Your task to perform on an android device: add a label to a message in the gmail app Image 0: 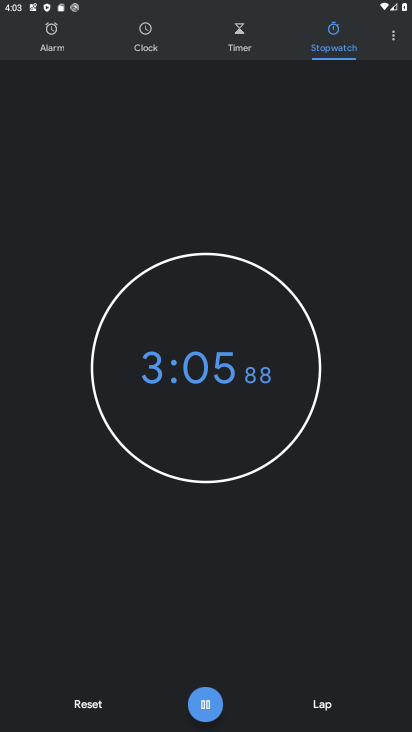
Step 0: press home button
Your task to perform on an android device: add a label to a message in the gmail app Image 1: 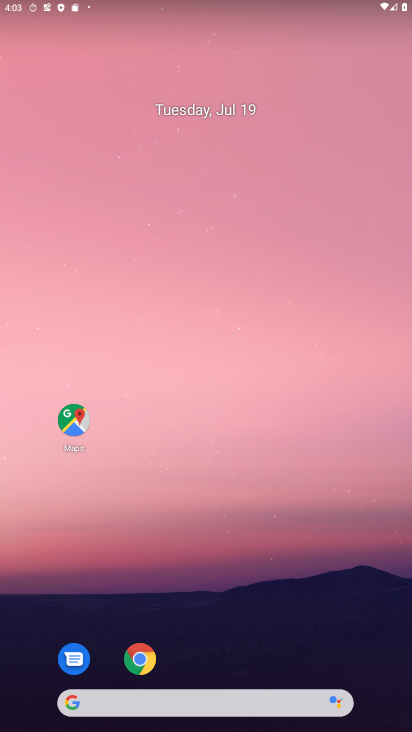
Step 1: drag from (298, 555) to (375, 152)
Your task to perform on an android device: add a label to a message in the gmail app Image 2: 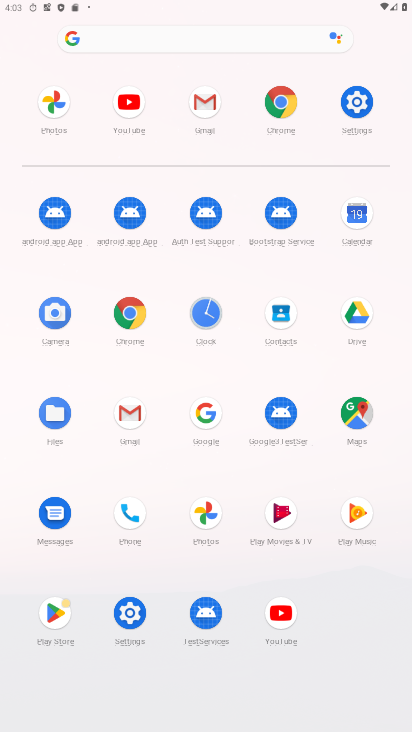
Step 2: click (204, 106)
Your task to perform on an android device: add a label to a message in the gmail app Image 3: 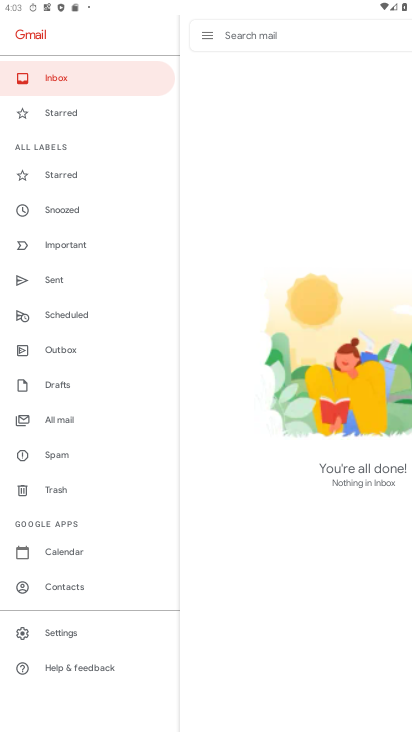
Step 3: click (99, 80)
Your task to perform on an android device: add a label to a message in the gmail app Image 4: 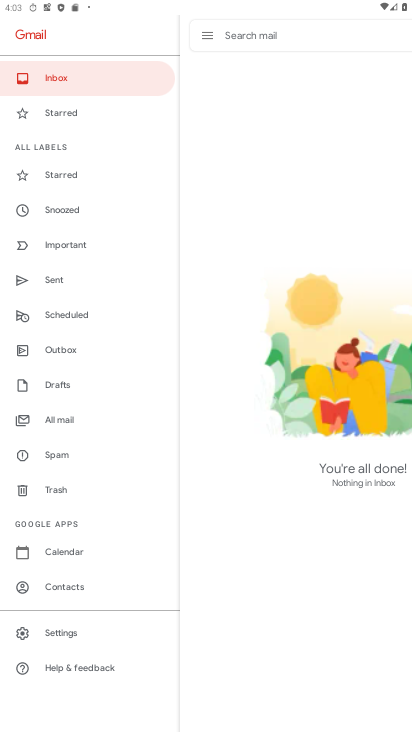
Step 4: task complete